Your task to perform on an android device: Clear all items from cart on ebay. Image 0: 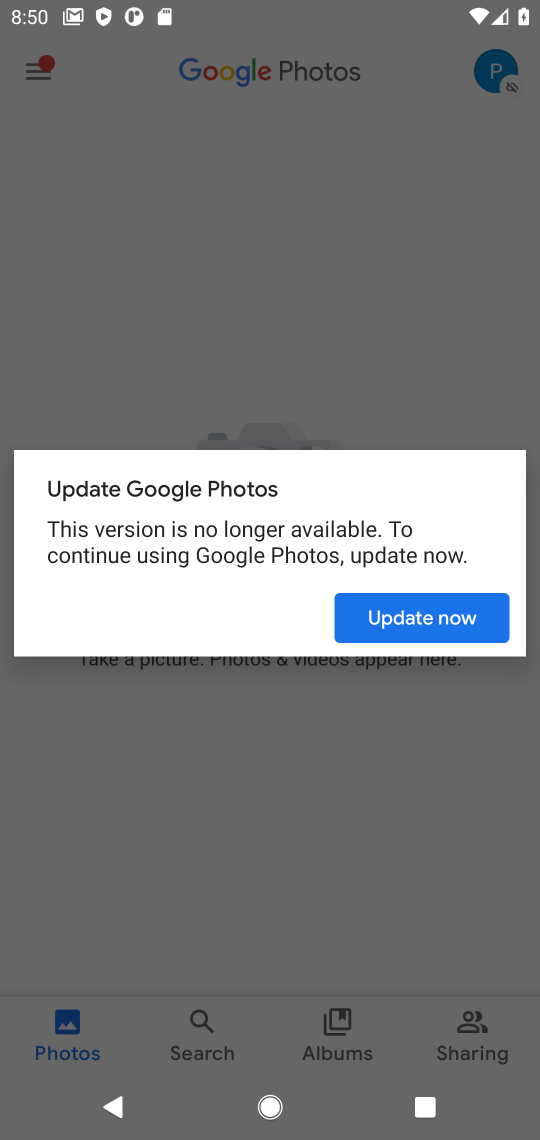
Step 0: press home button
Your task to perform on an android device: Clear all items from cart on ebay. Image 1: 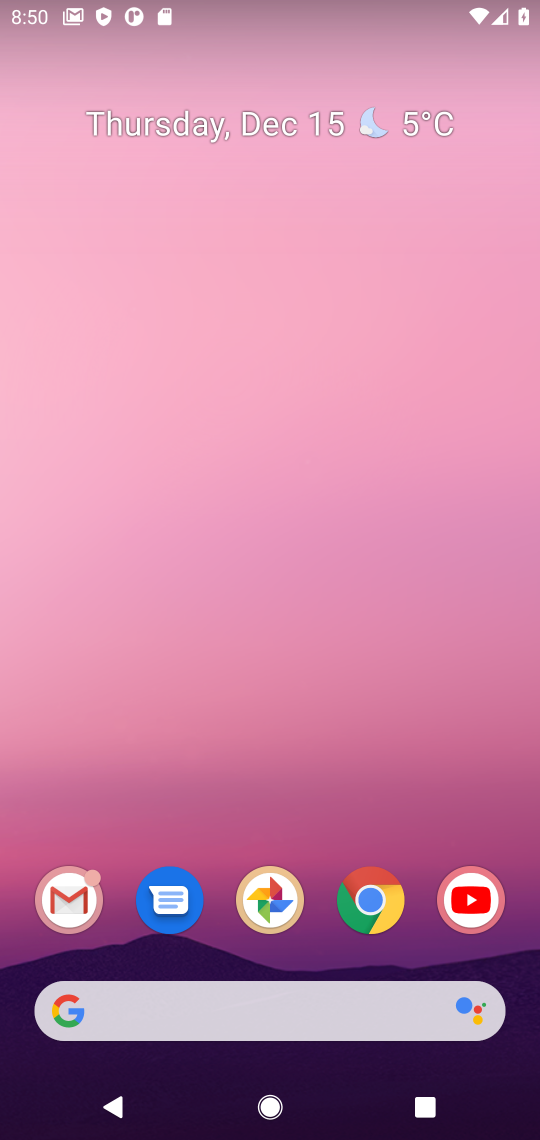
Step 1: click (374, 920)
Your task to perform on an android device: Clear all items from cart on ebay. Image 2: 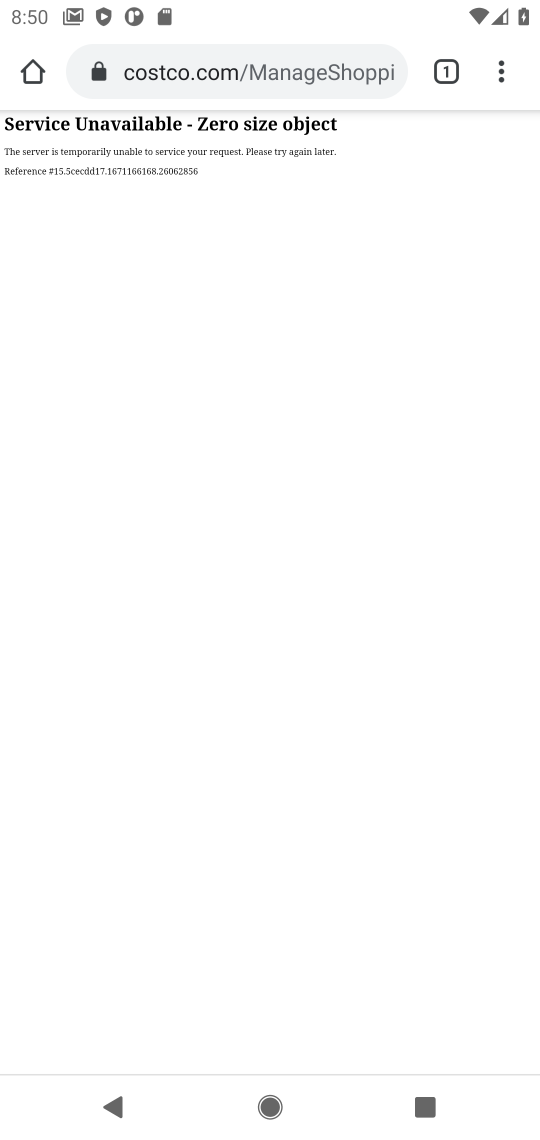
Step 2: click (227, 77)
Your task to perform on an android device: Clear all items from cart on ebay. Image 3: 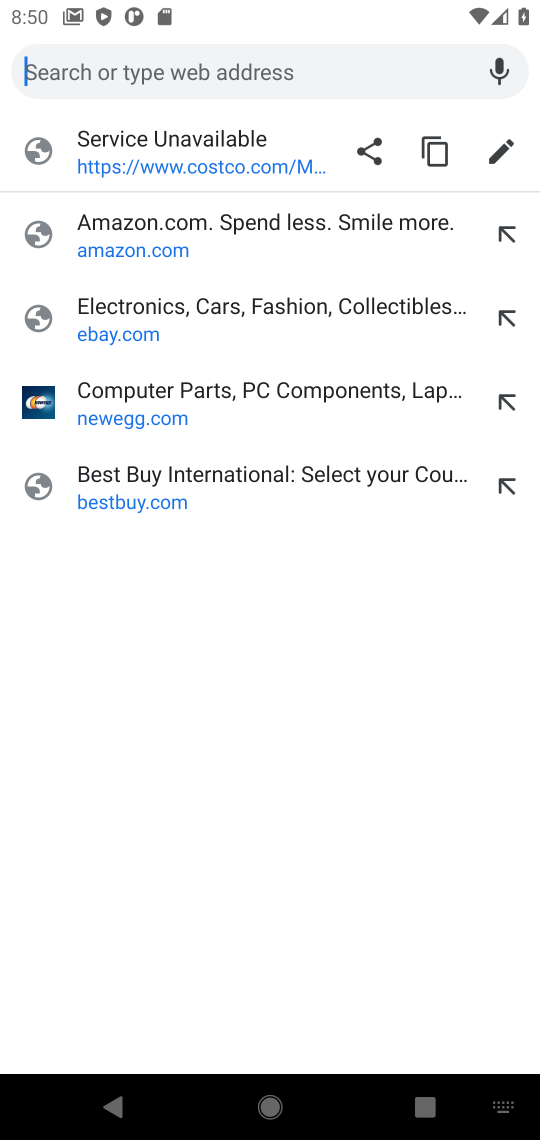
Step 3: type "ebay"
Your task to perform on an android device: Clear all items from cart on ebay. Image 4: 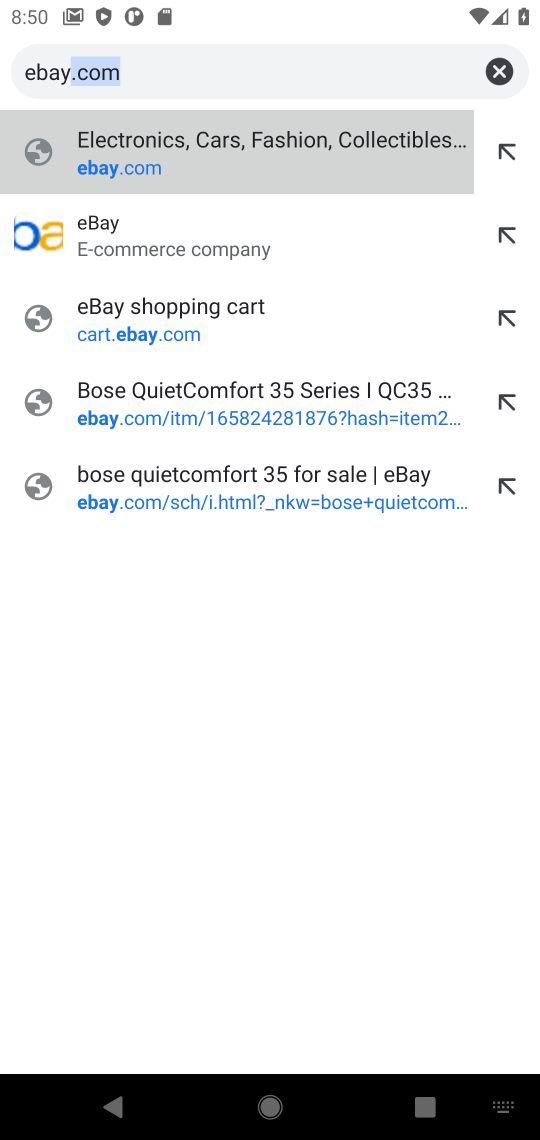
Step 4: click (163, 153)
Your task to perform on an android device: Clear all items from cart on ebay. Image 5: 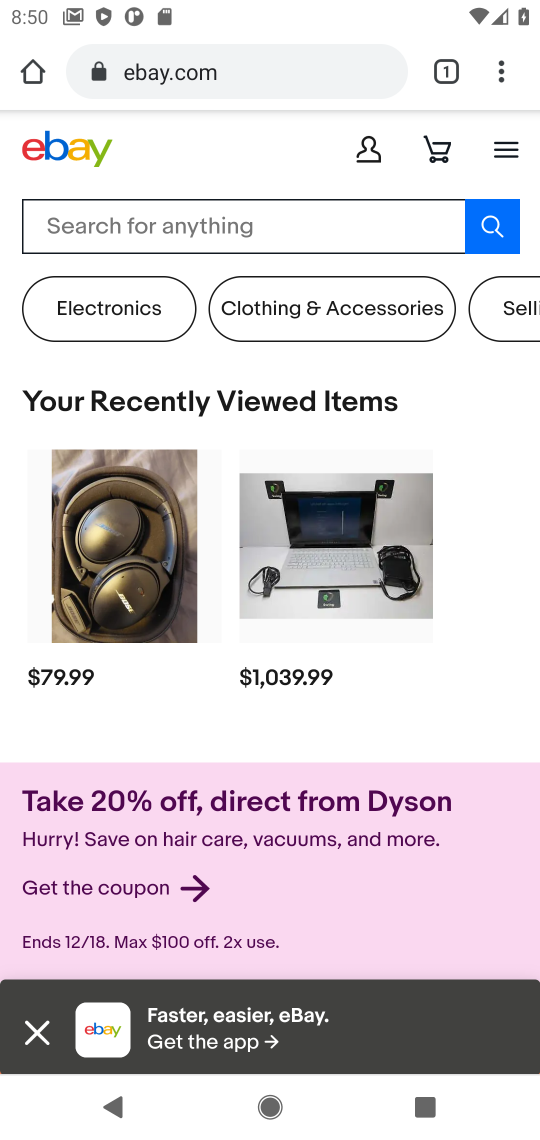
Step 5: click (439, 158)
Your task to perform on an android device: Clear all items from cart on ebay. Image 6: 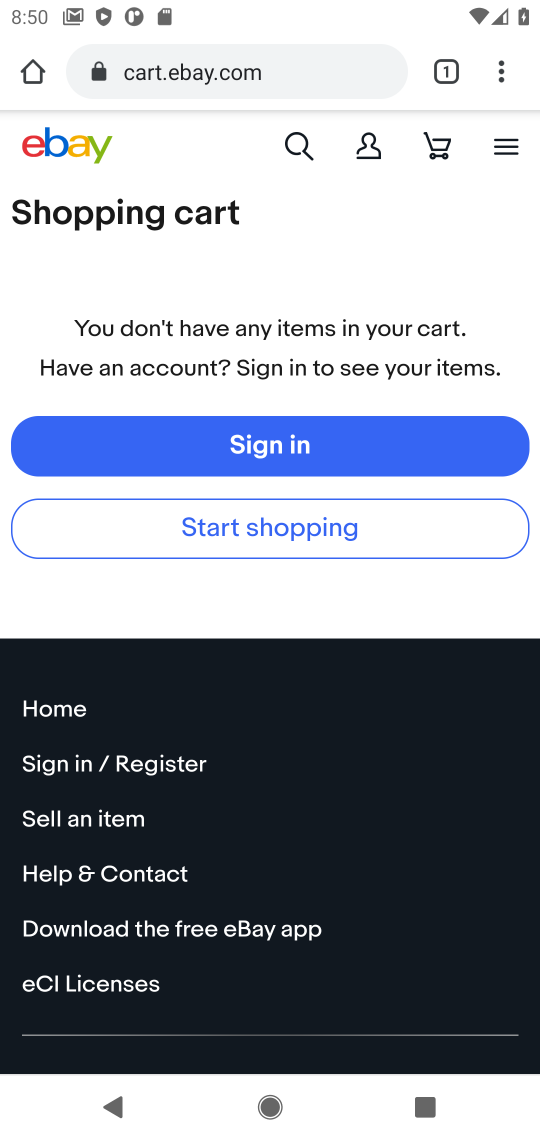
Step 6: task complete